Your task to perform on an android device: Go to Yahoo.com Image 0: 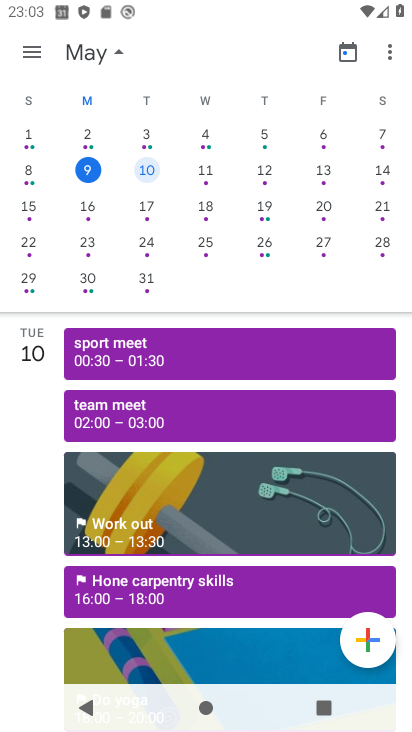
Step 0: press back button
Your task to perform on an android device: Go to Yahoo.com Image 1: 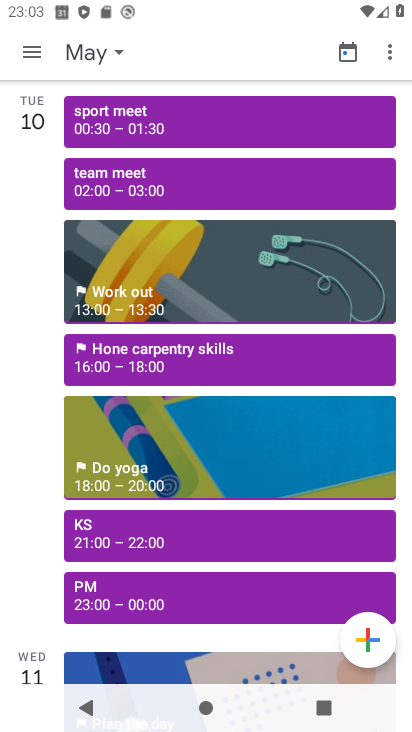
Step 1: press back button
Your task to perform on an android device: Go to Yahoo.com Image 2: 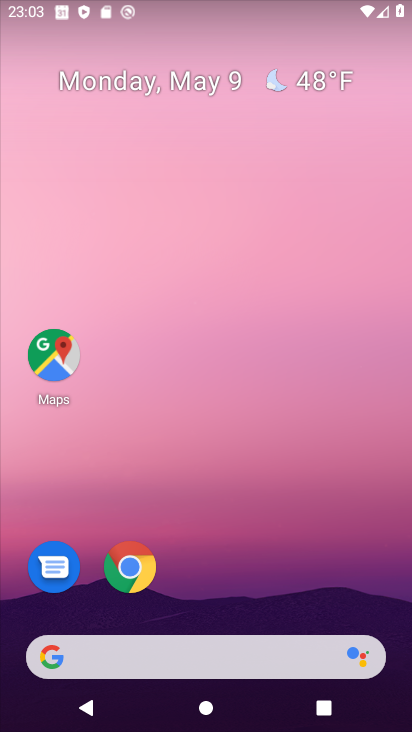
Step 2: click (128, 567)
Your task to perform on an android device: Go to Yahoo.com Image 3: 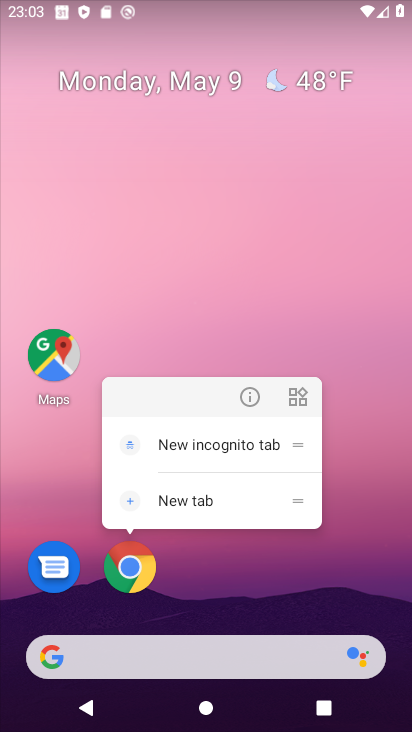
Step 3: click (128, 567)
Your task to perform on an android device: Go to Yahoo.com Image 4: 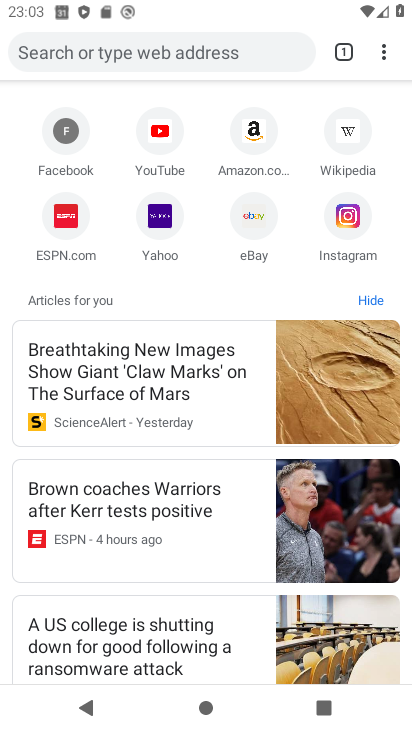
Step 4: click (189, 45)
Your task to perform on an android device: Go to Yahoo.com Image 5: 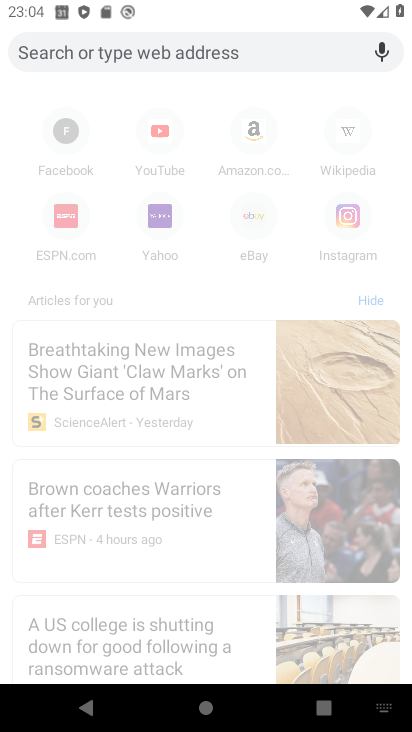
Step 5: type "Yahoo.com"
Your task to perform on an android device: Go to Yahoo.com Image 6: 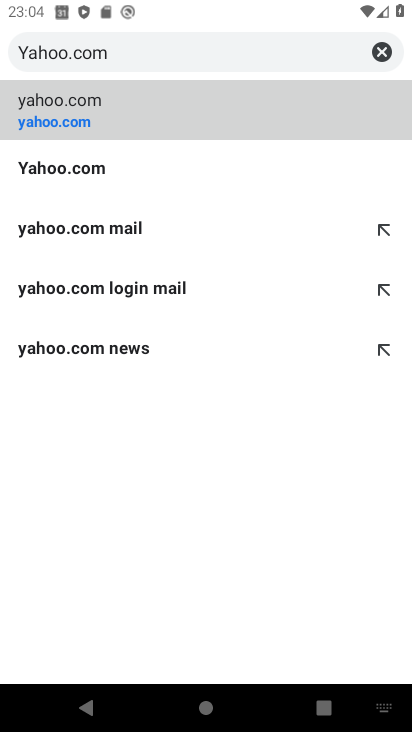
Step 6: click (76, 169)
Your task to perform on an android device: Go to Yahoo.com Image 7: 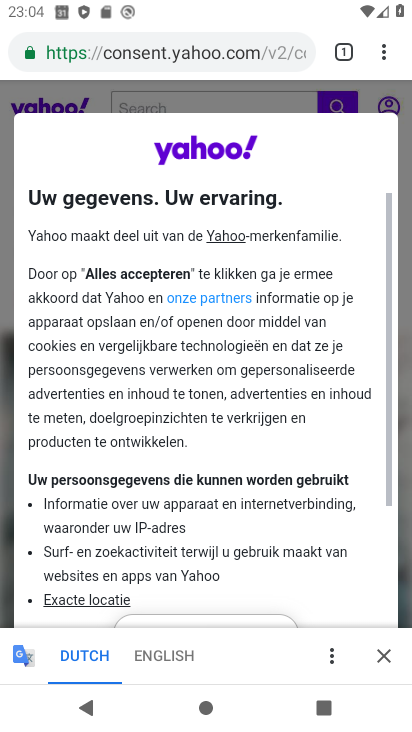
Step 7: task complete